Your task to perform on an android device: change timer sound Image 0: 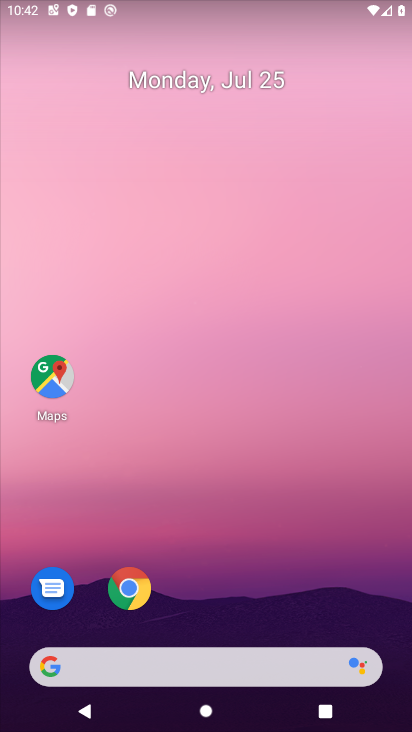
Step 0: drag from (362, 613) to (289, 124)
Your task to perform on an android device: change timer sound Image 1: 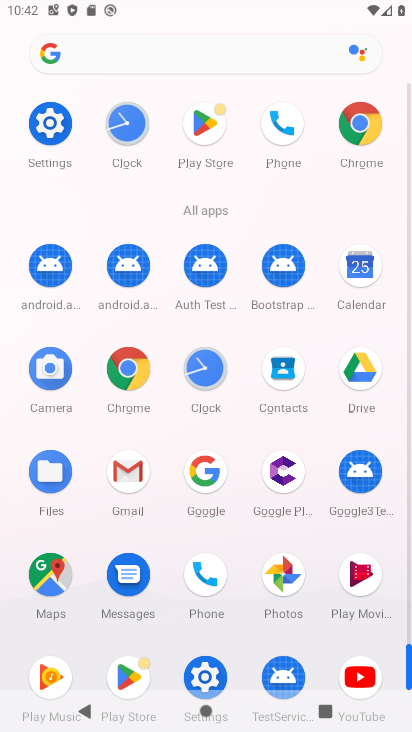
Step 1: click (198, 366)
Your task to perform on an android device: change timer sound Image 2: 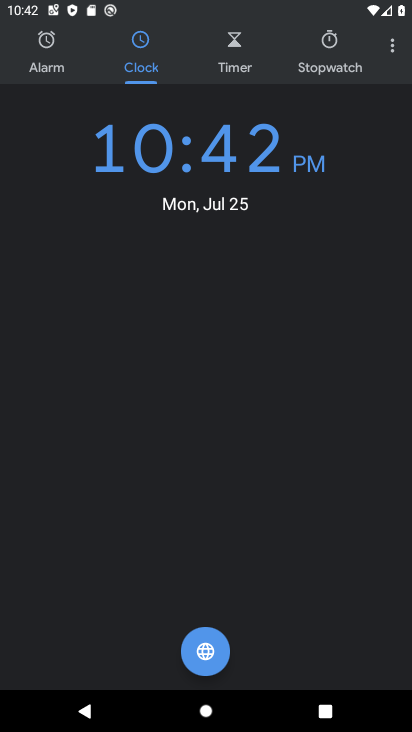
Step 2: click (390, 61)
Your task to perform on an android device: change timer sound Image 3: 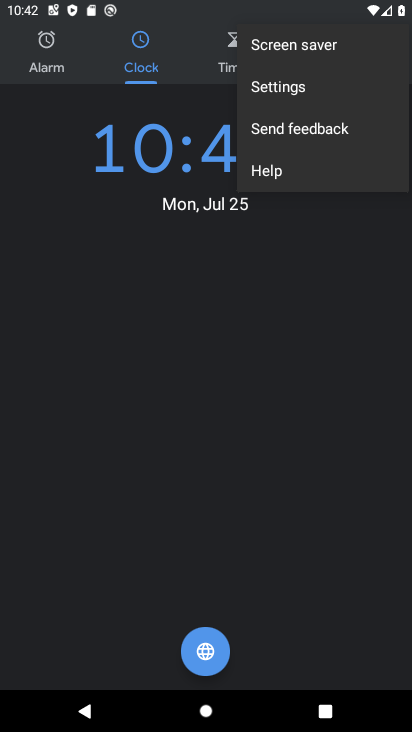
Step 3: click (311, 93)
Your task to perform on an android device: change timer sound Image 4: 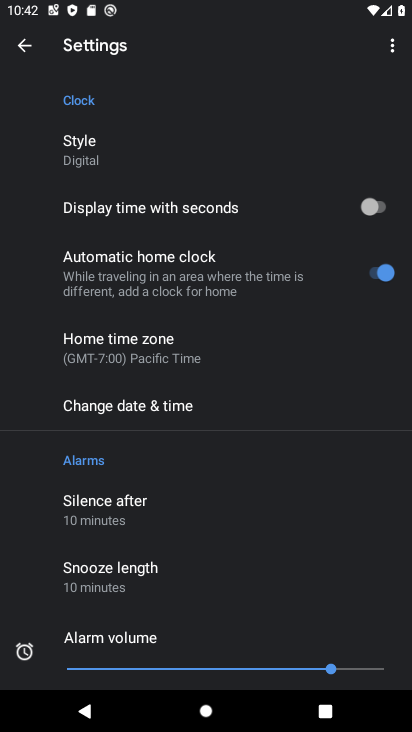
Step 4: drag from (260, 607) to (176, 107)
Your task to perform on an android device: change timer sound Image 5: 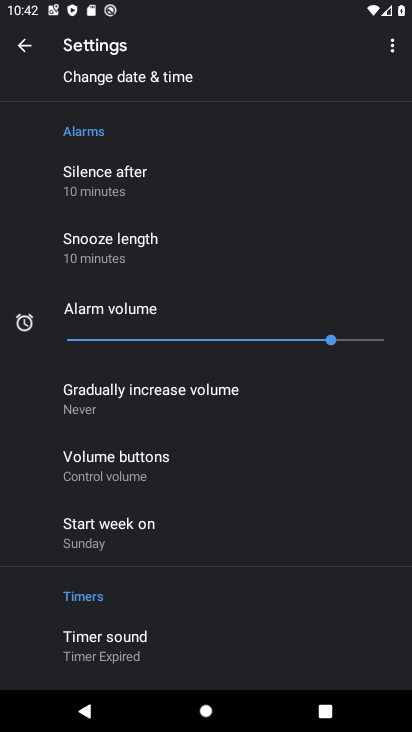
Step 5: click (173, 648)
Your task to perform on an android device: change timer sound Image 6: 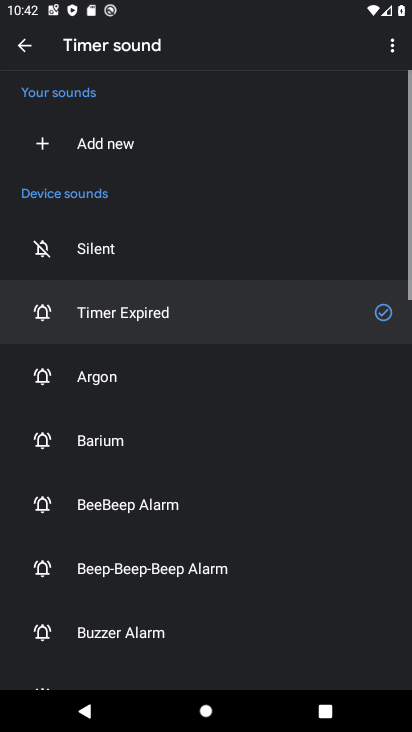
Step 6: click (193, 544)
Your task to perform on an android device: change timer sound Image 7: 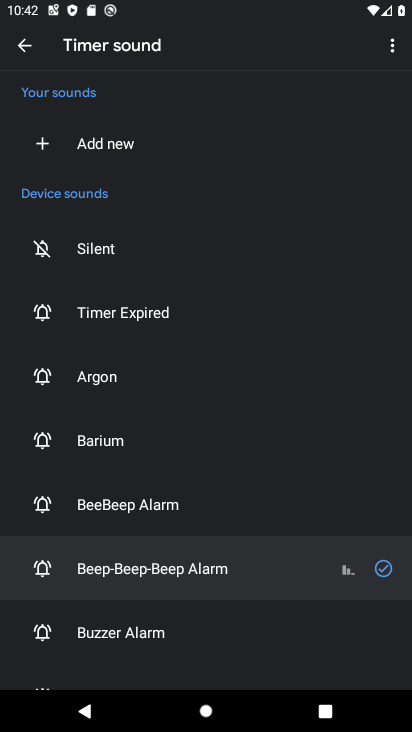
Step 7: task complete